Your task to perform on an android device: Go to network settings Image 0: 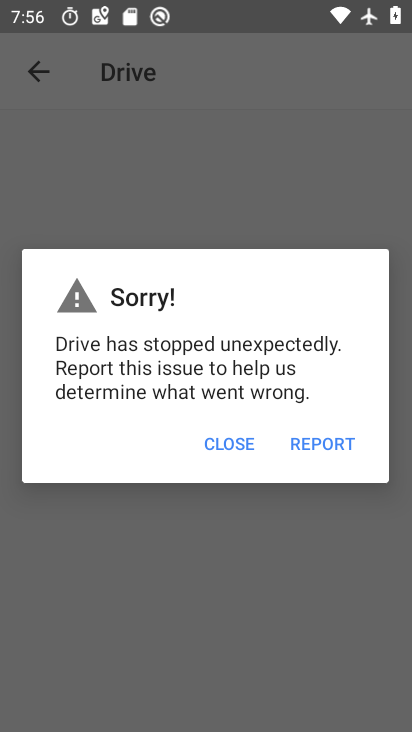
Step 0: press home button
Your task to perform on an android device: Go to network settings Image 1: 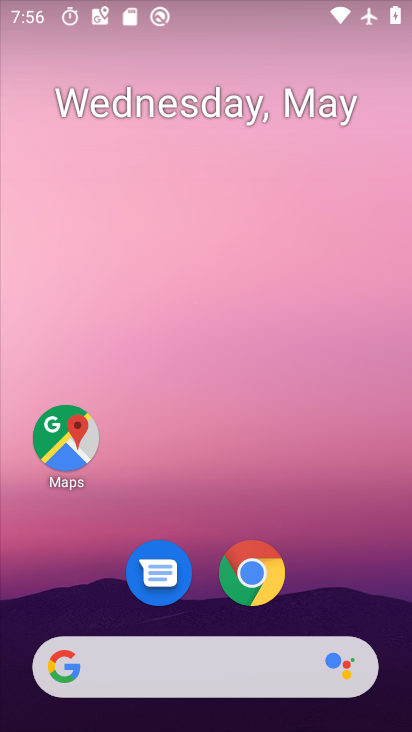
Step 1: drag from (295, 597) to (263, 64)
Your task to perform on an android device: Go to network settings Image 2: 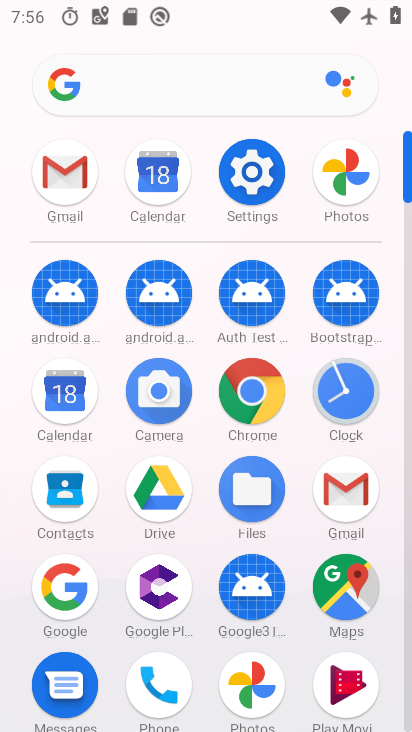
Step 2: click (243, 168)
Your task to perform on an android device: Go to network settings Image 3: 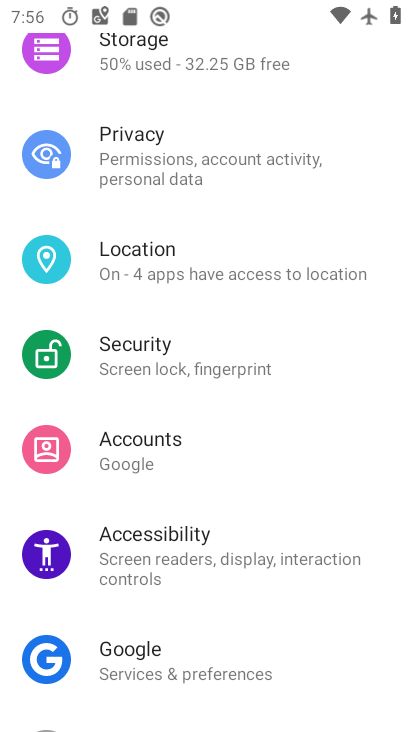
Step 3: drag from (243, 168) to (311, 389)
Your task to perform on an android device: Go to network settings Image 4: 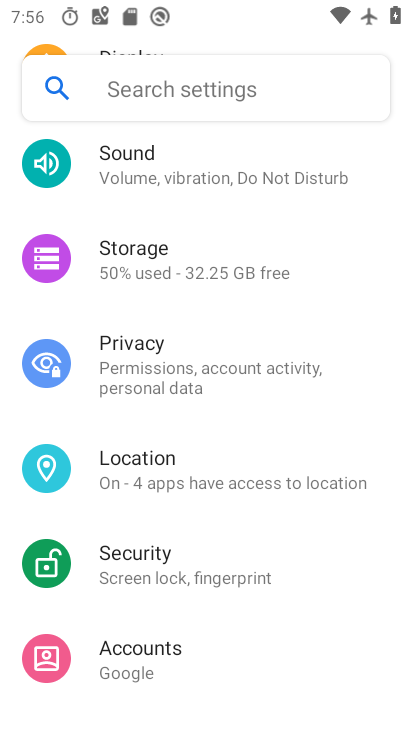
Step 4: drag from (284, 316) to (349, 457)
Your task to perform on an android device: Go to network settings Image 5: 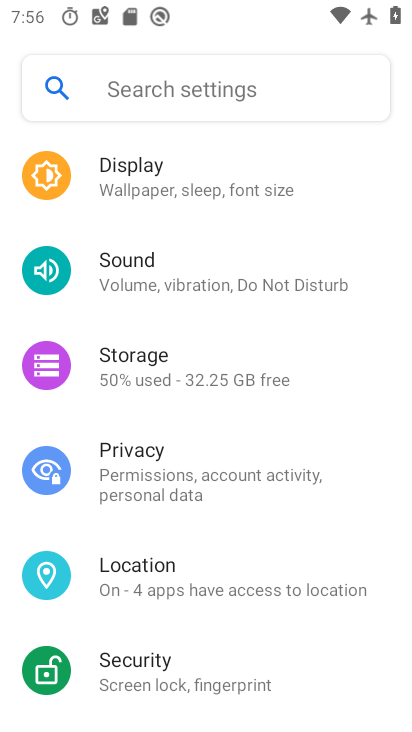
Step 5: drag from (270, 290) to (335, 434)
Your task to perform on an android device: Go to network settings Image 6: 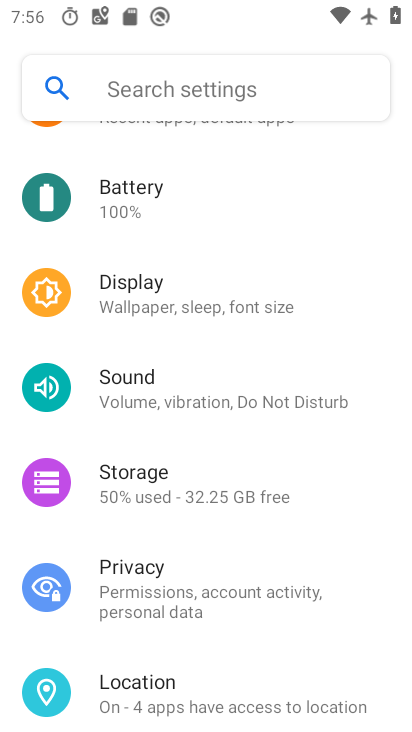
Step 6: drag from (276, 282) to (316, 450)
Your task to perform on an android device: Go to network settings Image 7: 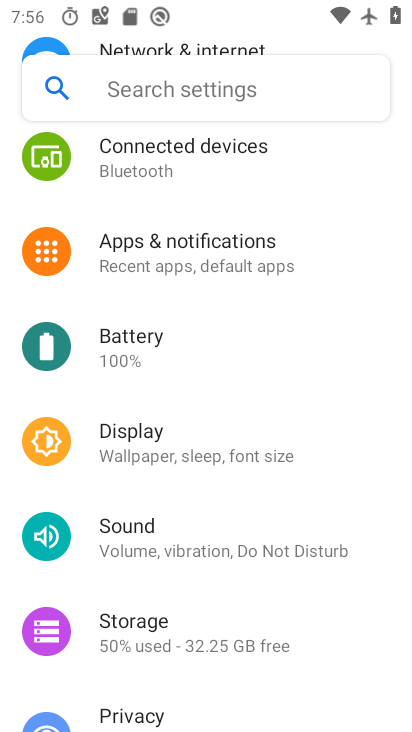
Step 7: drag from (282, 354) to (322, 513)
Your task to perform on an android device: Go to network settings Image 8: 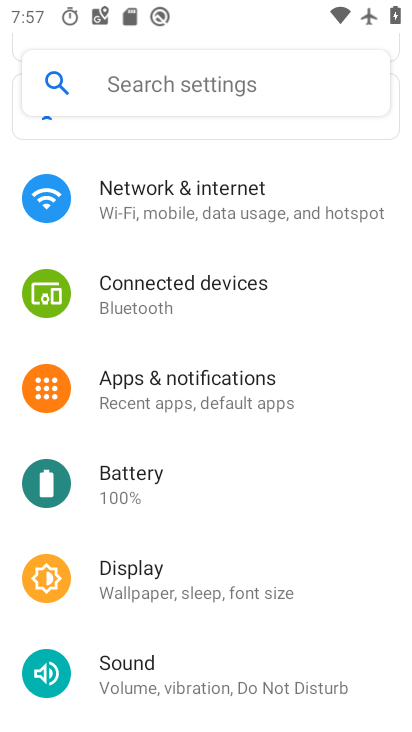
Step 8: click (183, 192)
Your task to perform on an android device: Go to network settings Image 9: 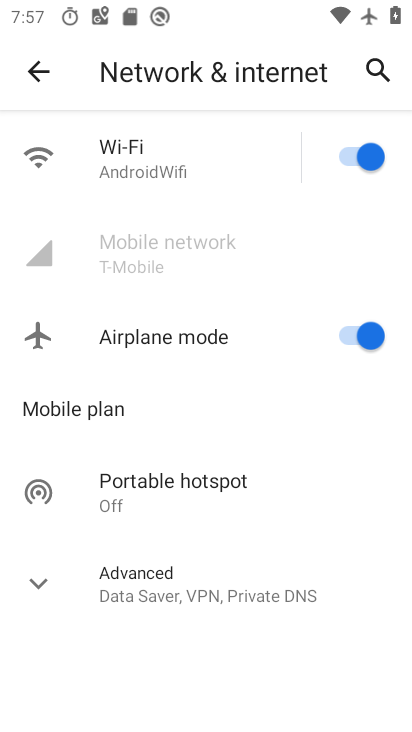
Step 9: click (135, 258)
Your task to perform on an android device: Go to network settings Image 10: 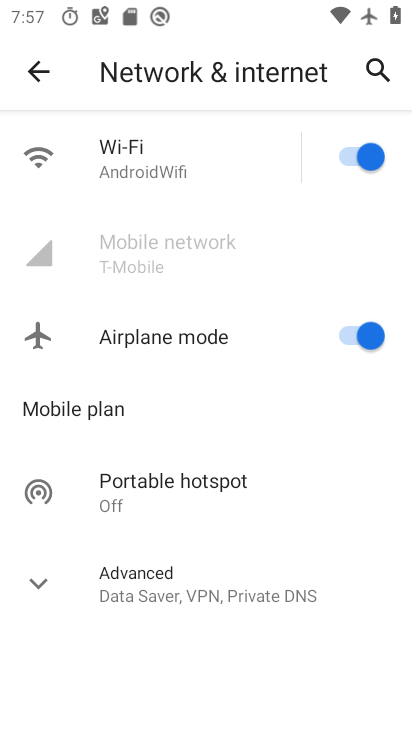
Step 10: task complete